Your task to perform on an android device: Open the stopwatch Image 0: 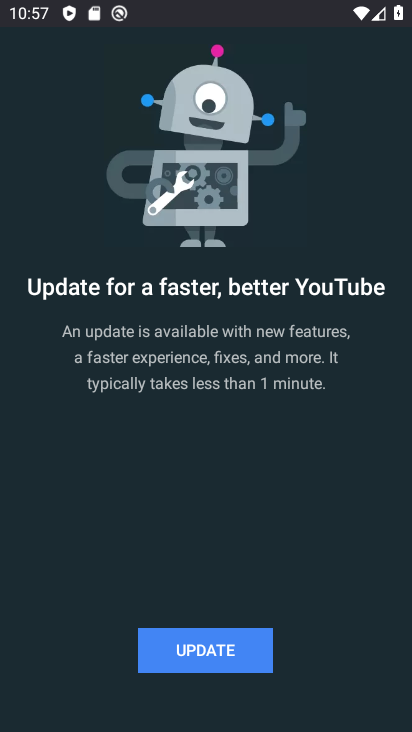
Step 0: press home button
Your task to perform on an android device: Open the stopwatch Image 1: 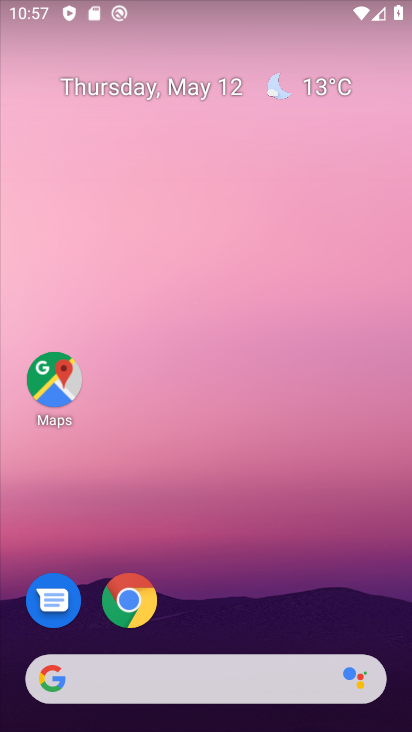
Step 1: drag from (391, 617) to (299, 89)
Your task to perform on an android device: Open the stopwatch Image 2: 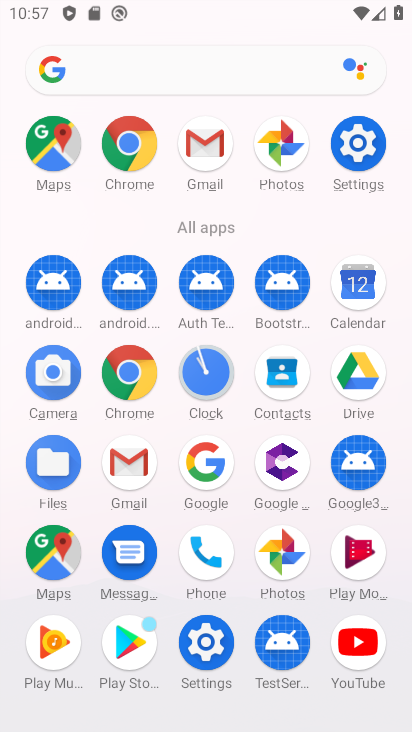
Step 2: click (202, 364)
Your task to perform on an android device: Open the stopwatch Image 3: 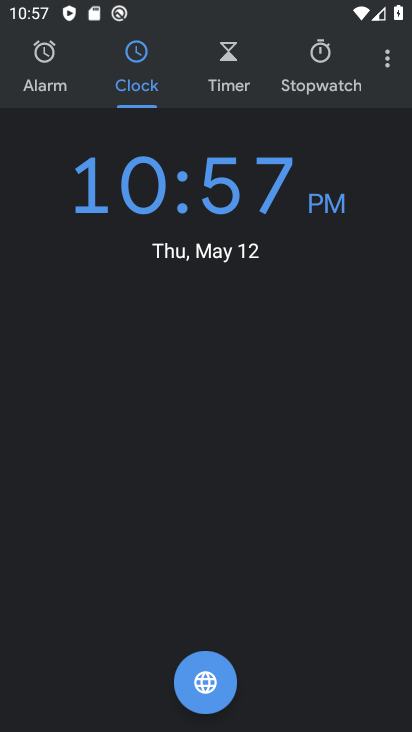
Step 3: click (320, 63)
Your task to perform on an android device: Open the stopwatch Image 4: 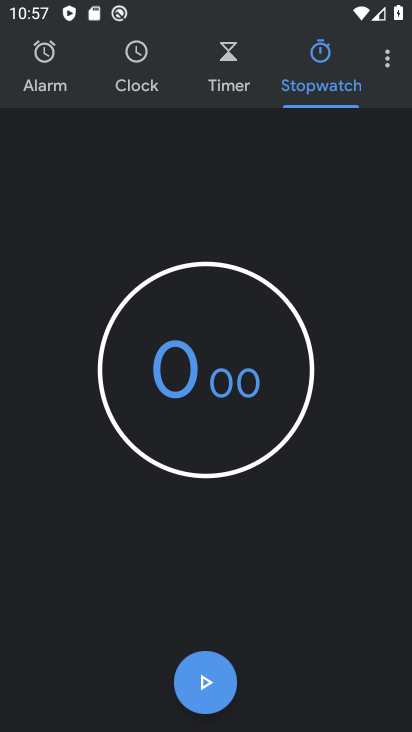
Step 4: task complete